Your task to perform on an android device: Open eBay Image 0: 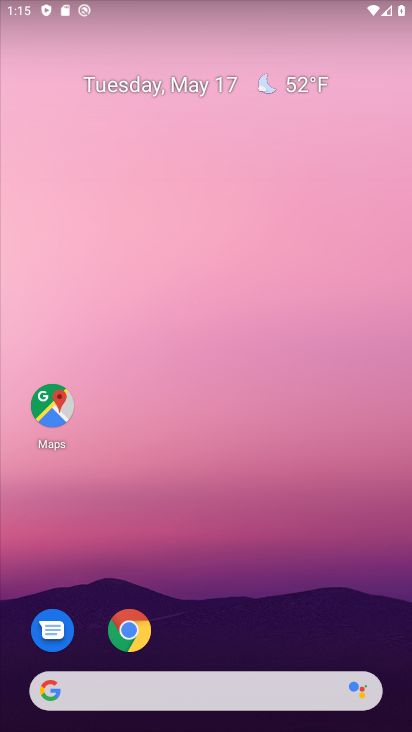
Step 0: click (123, 633)
Your task to perform on an android device: Open eBay Image 1: 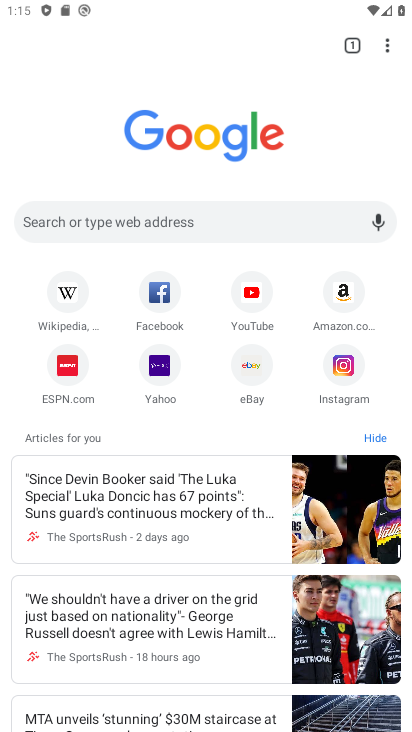
Step 1: click (252, 371)
Your task to perform on an android device: Open eBay Image 2: 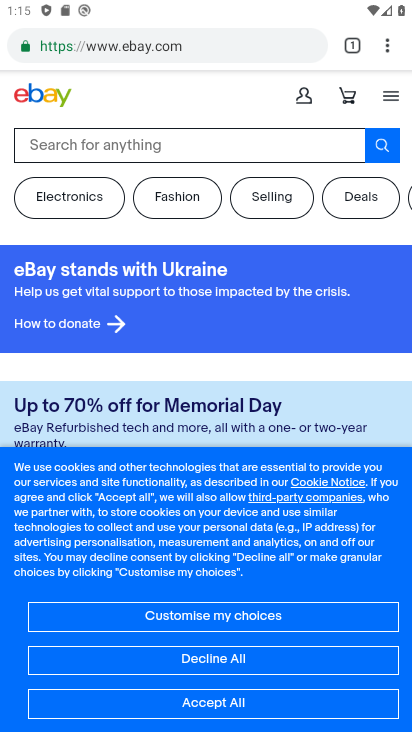
Step 2: task complete